Your task to perform on an android device: change timer sound Image 0: 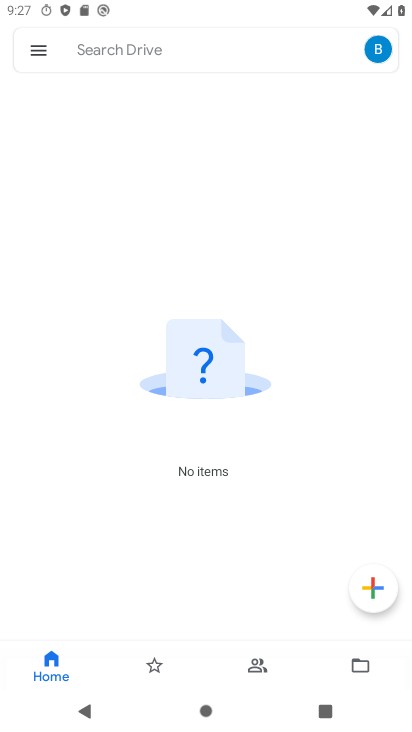
Step 0: press home button
Your task to perform on an android device: change timer sound Image 1: 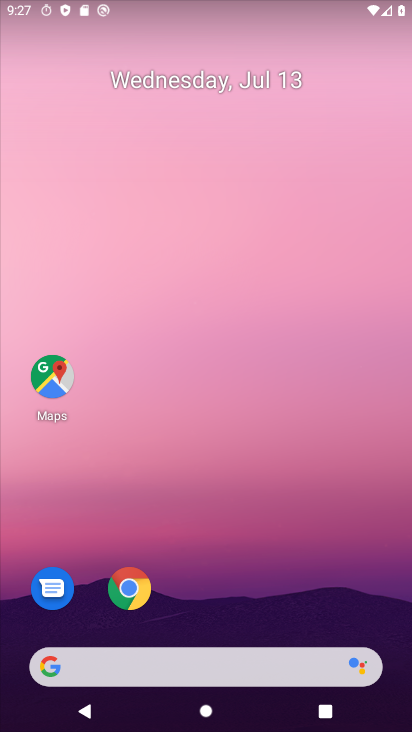
Step 1: drag from (304, 618) to (307, 107)
Your task to perform on an android device: change timer sound Image 2: 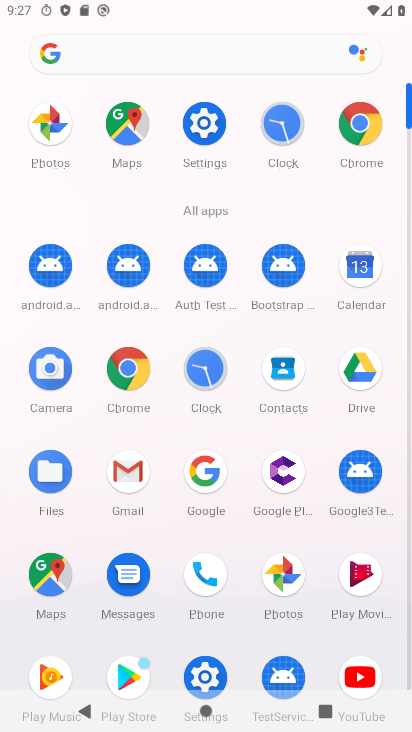
Step 2: click (281, 114)
Your task to perform on an android device: change timer sound Image 3: 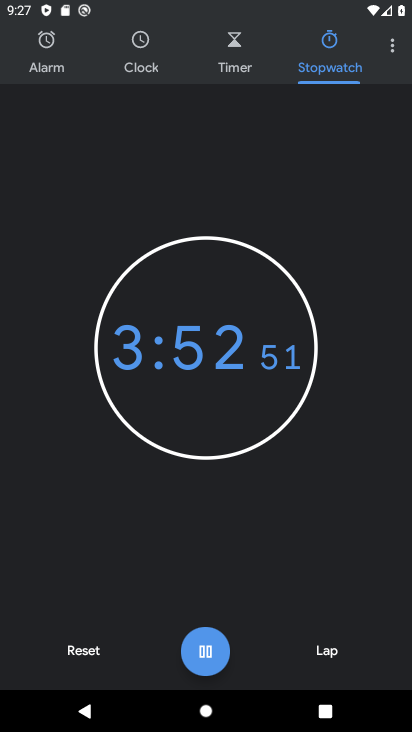
Step 3: click (391, 44)
Your task to perform on an android device: change timer sound Image 4: 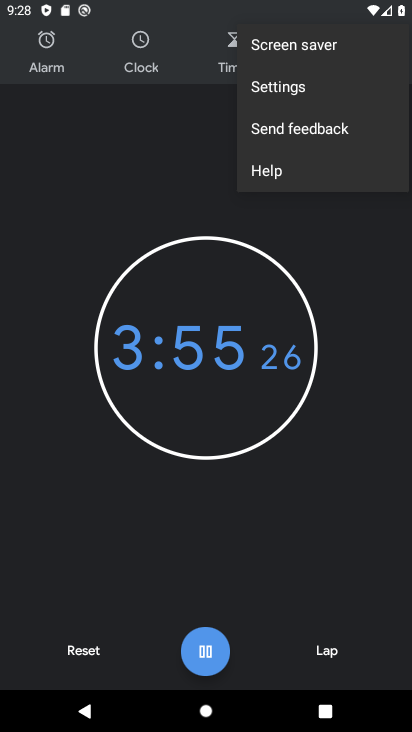
Step 4: click (300, 80)
Your task to perform on an android device: change timer sound Image 5: 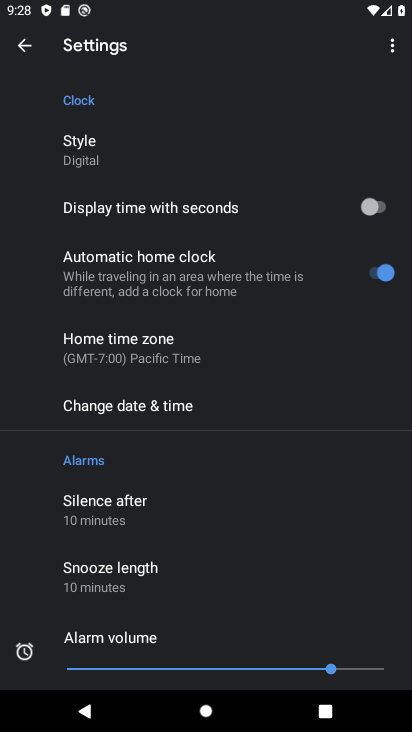
Step 5: drag from (140, 609) to (192, 316)
Your task to perform on an android device: change timer sound Image 6: 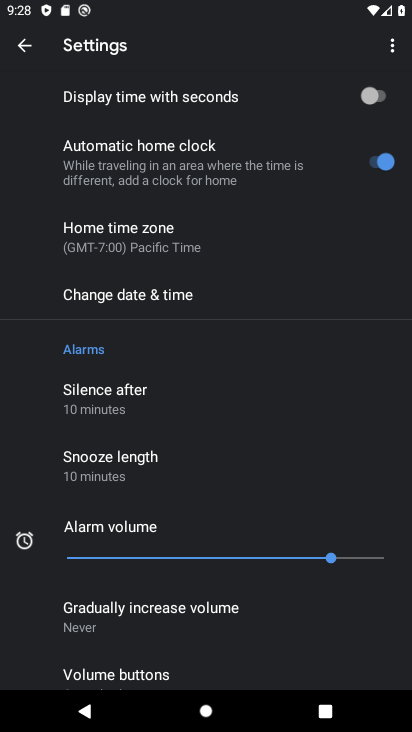
Step 6: drag from (166, 656) to (189, 176)
Your task to perform on an android device: change timer sound Image 7: 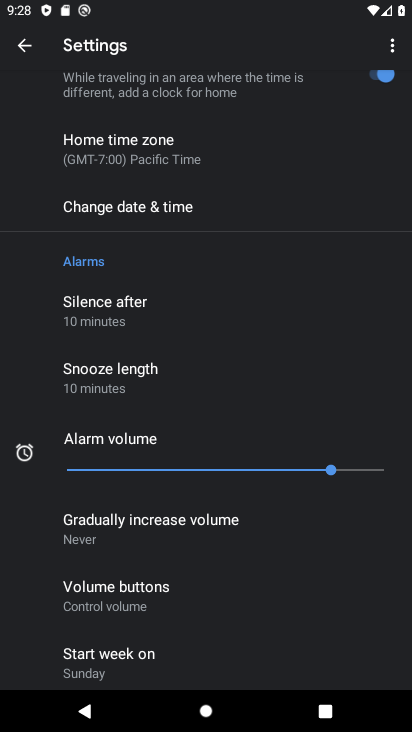
Step 7: drag from (151, 560) to (136, 142)
Your task to perform on an android device: change timer sound Image 8: 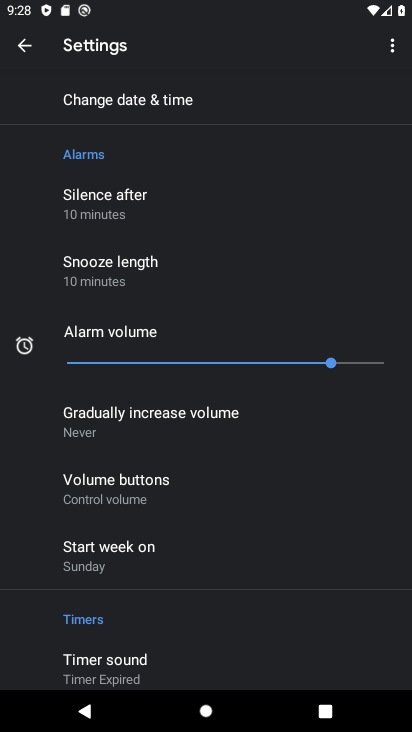
Step 8: click (129, 660)
Your task to perform on an android device: change timer sound Image 9: 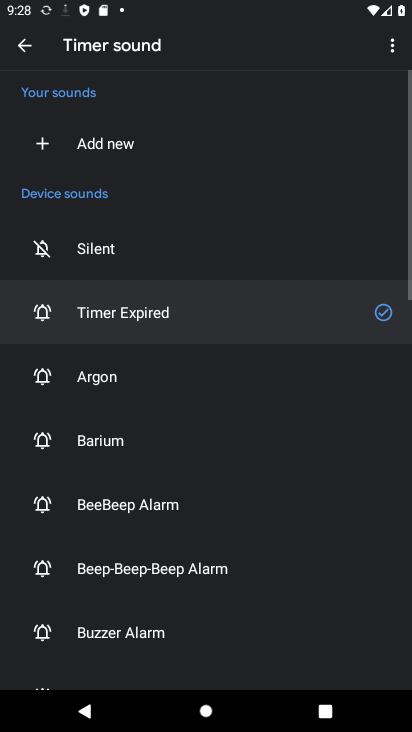
Step 9: click (164, 393)
Your task to perform on an android device: change timer sound Image 10: 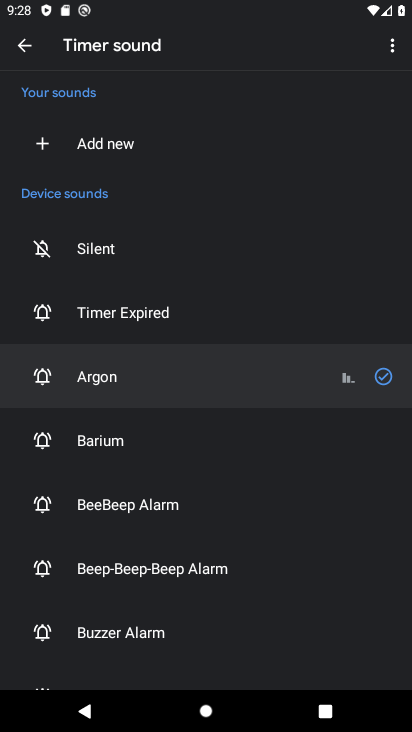
Step 10: task complete